Your task to perform on an android device: Play the last video I watched on Youtube Image 0: 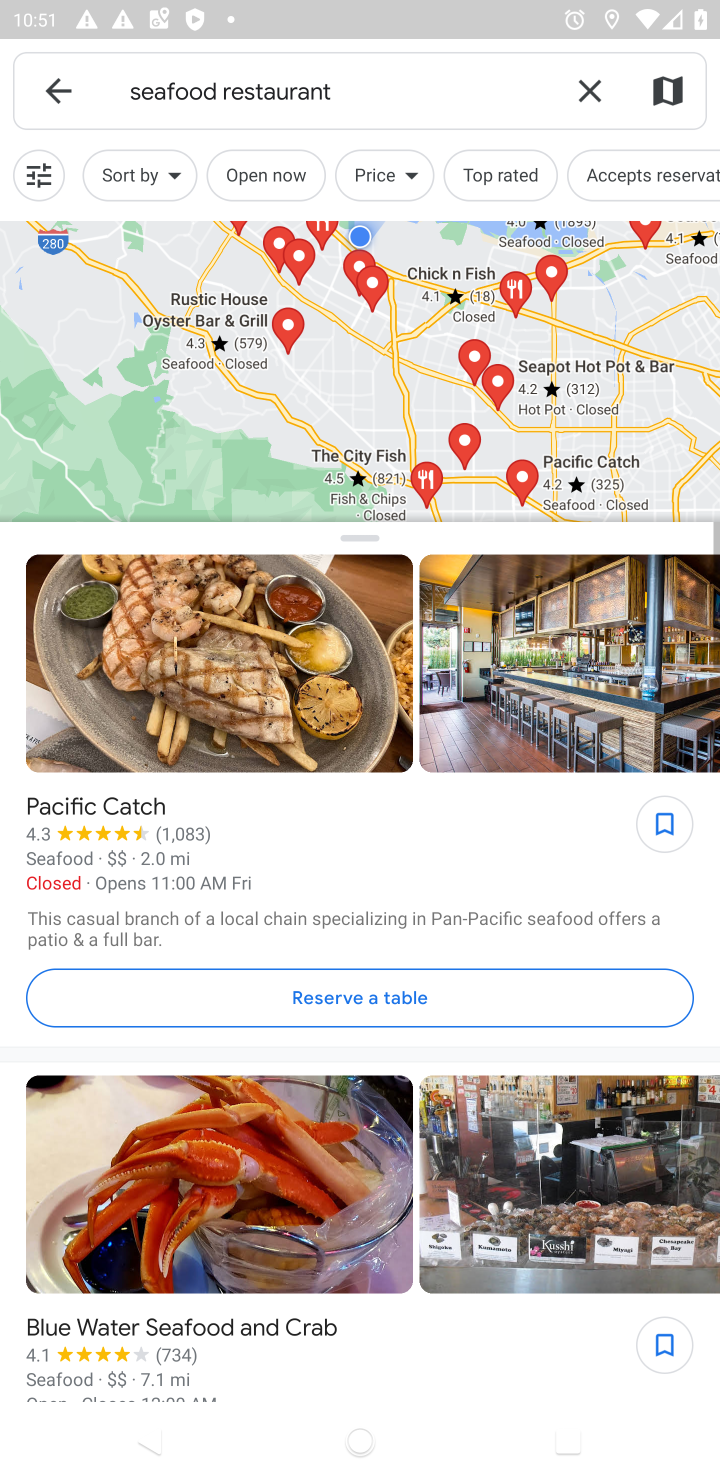
Step 0: press home button
Your task to perform on an android device: Play the last video I watched on Youtube Image 1: 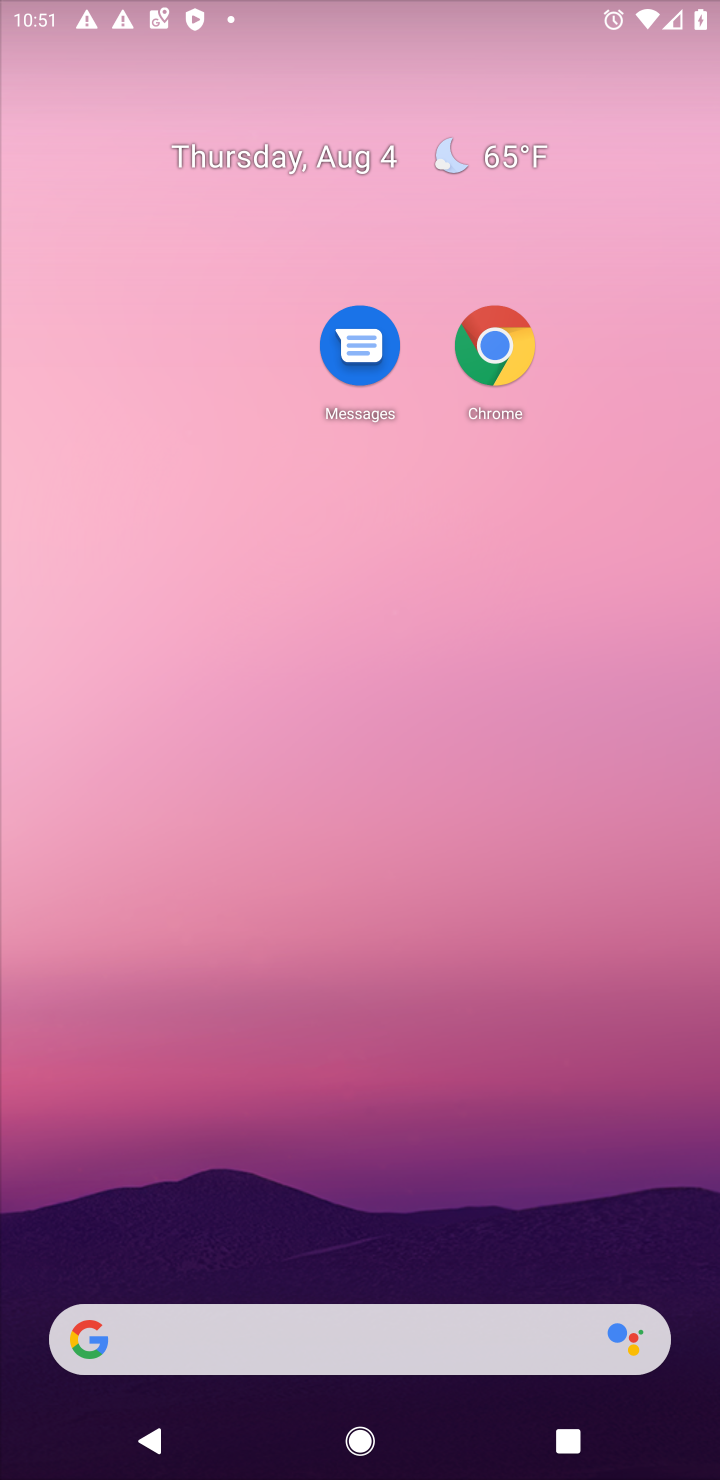
Step 1: drag from (526, 1311) to (404, 0)
Your task to perform on an android device: Play the last video I watched on Youtube Image 2: 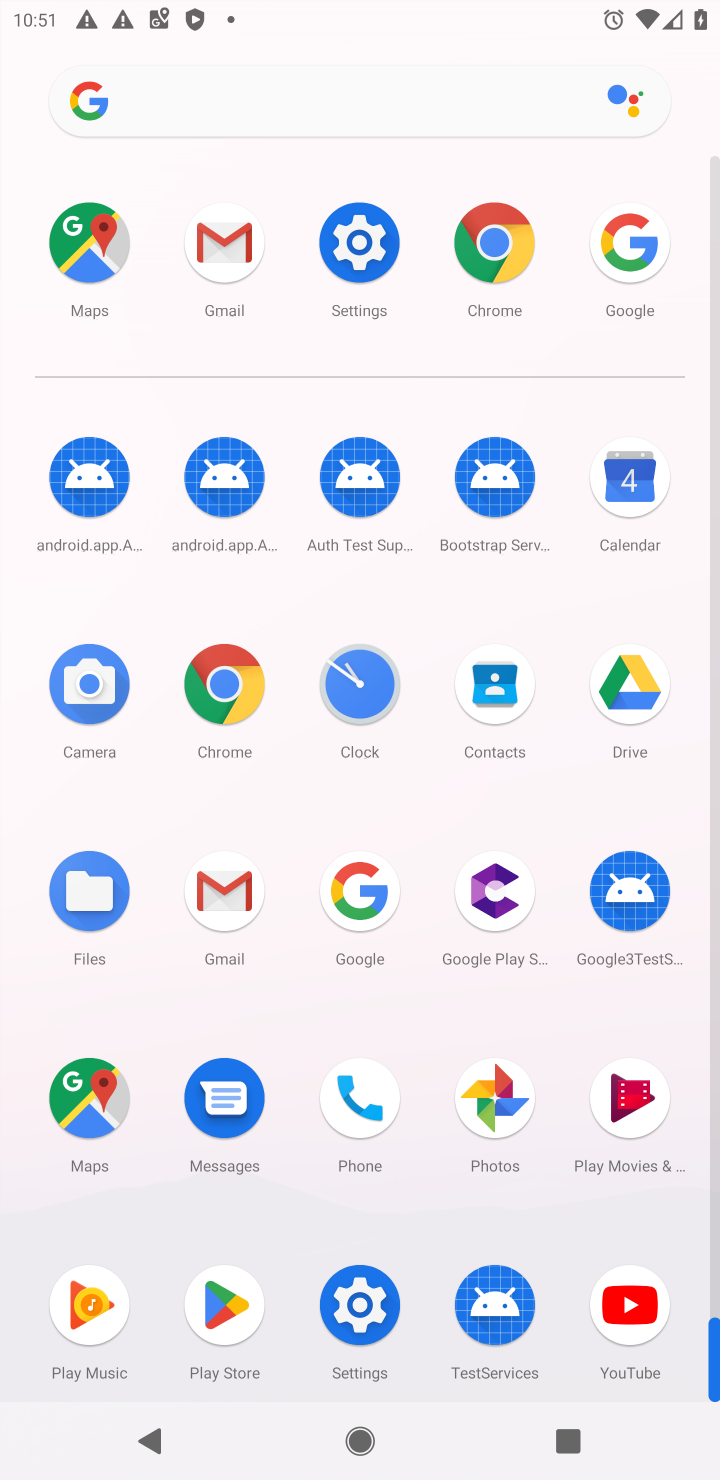
Step 2: click (650, 1289)
Your task to perform on an android device: Play the last video I watched on Youtube Image 3: 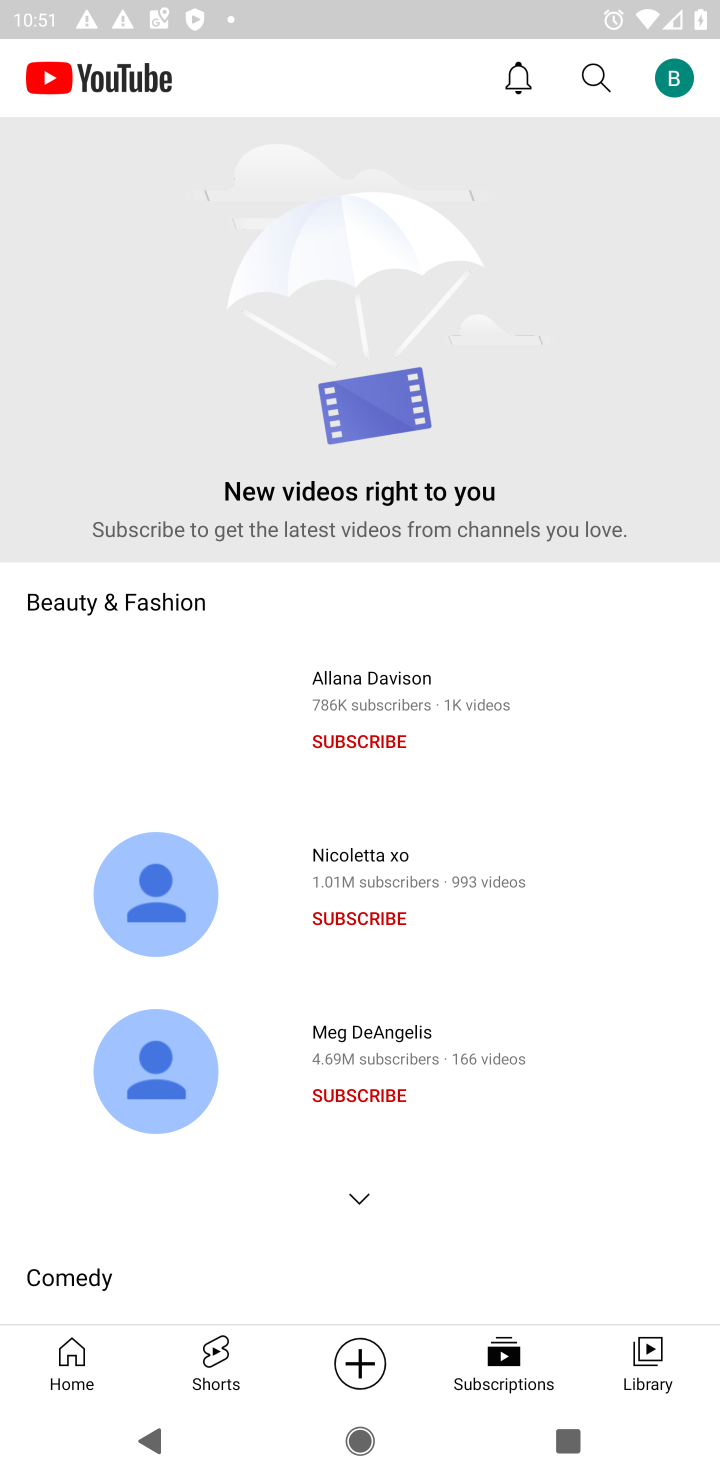
Step 3: click (643, 1368)
Your task to perform on an android device: Play the last video I watched on Youtube Image 4: 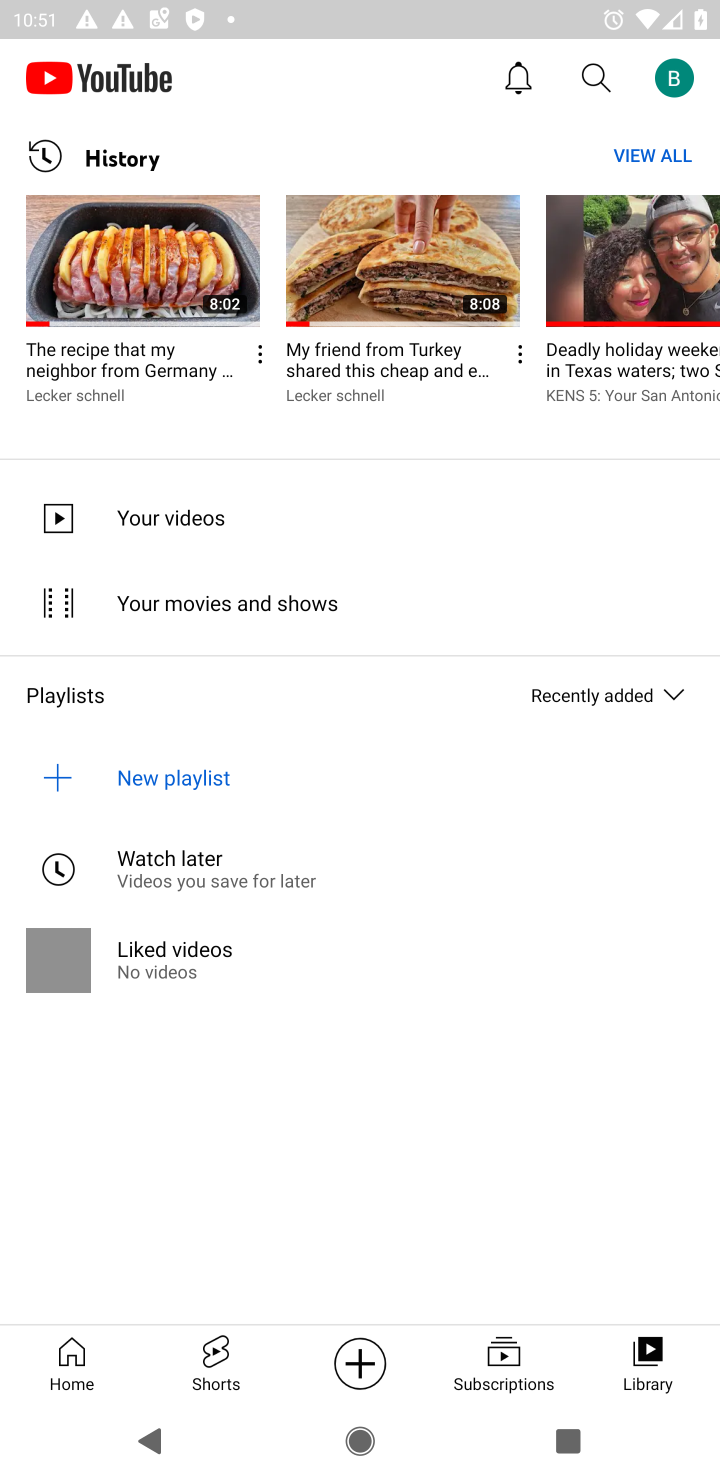
Step 4: click (109, 301)
Your task to perform on an android device: Play the last video I watched on Youtube Image 5: 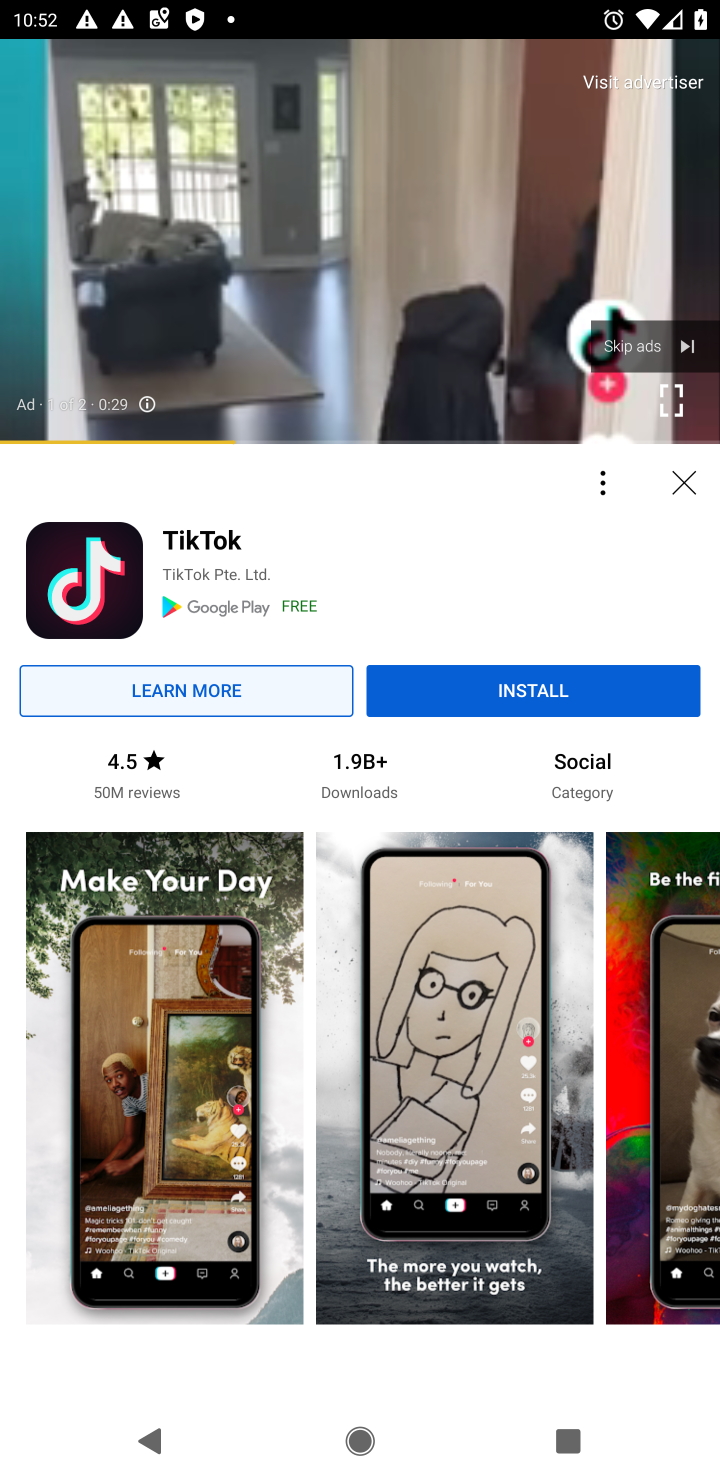
Step 5: task complete